Your task to perform on an android device: Go to Amazon Image 0: 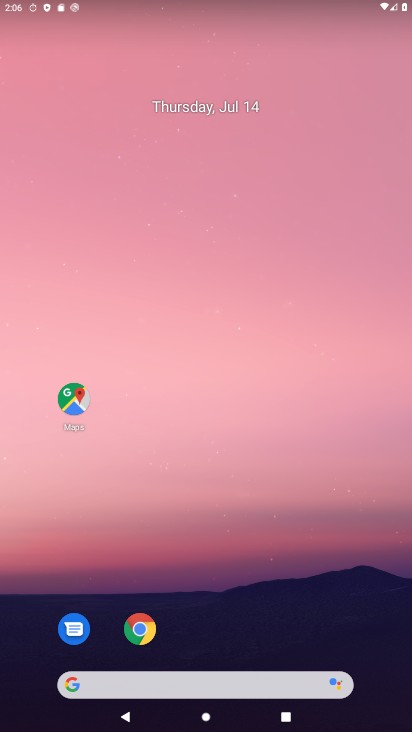
Step 0: click (133, 629)
Your task to perform on an android device: Go to Amazon Image 1: 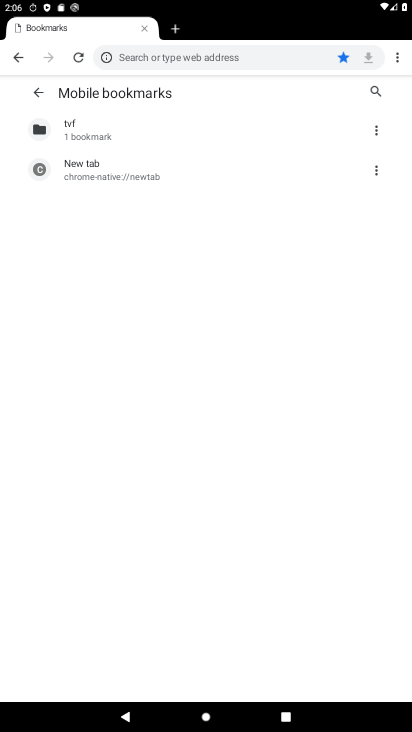
Step 1: click (192, 57)
Your task to perform on an android device: Go to Amazon Image 2: 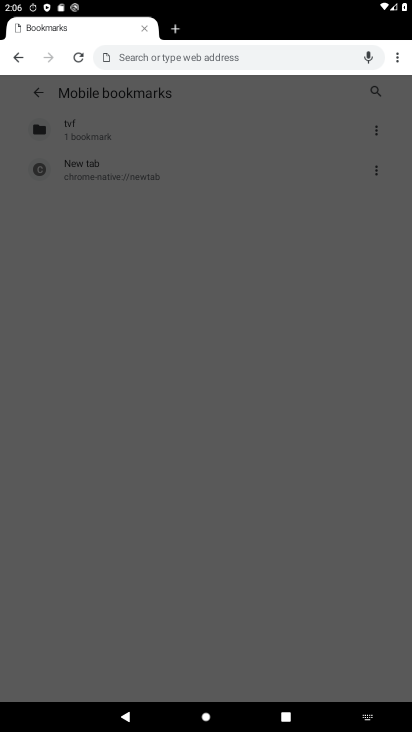
Step 2: type "Amazon"
Your task to perform on an android device: Go to Amazon Image 3: 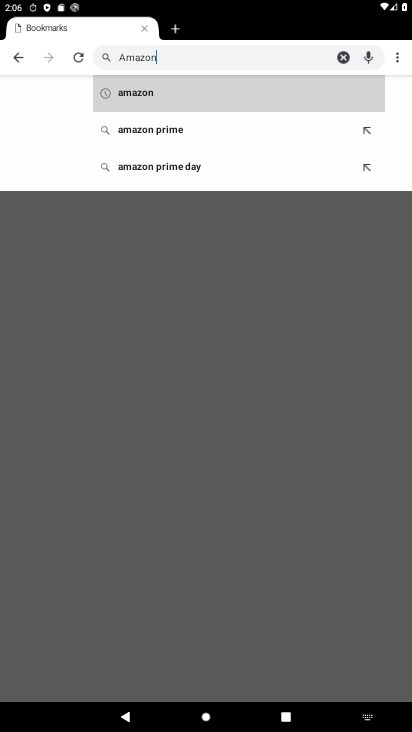
Step 3: click (154, 98)
Your task to perform on an android device: Go to Amazon Image 4: 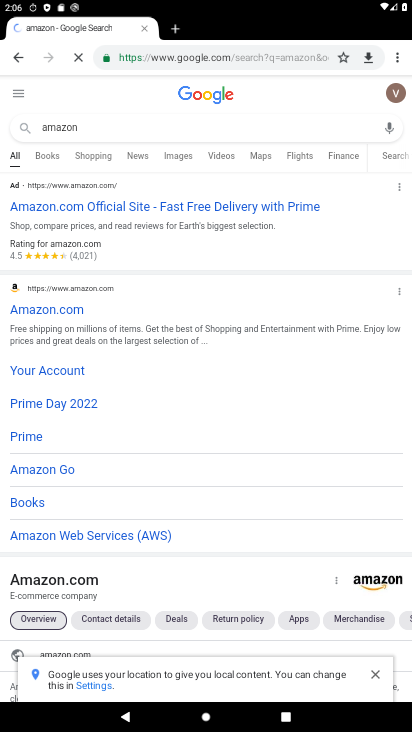
Step 4: task complete